Your task to perform on an android device: Open calendar and show me the first week of next month Image 0: 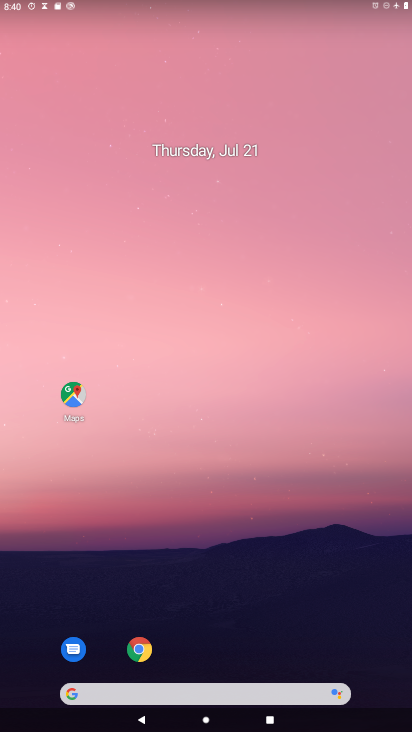
Step 0: drag from (364, 614) to (211, 60)
Your task to perform on an android device: Open calendar and show me the first week of next month Image 1: 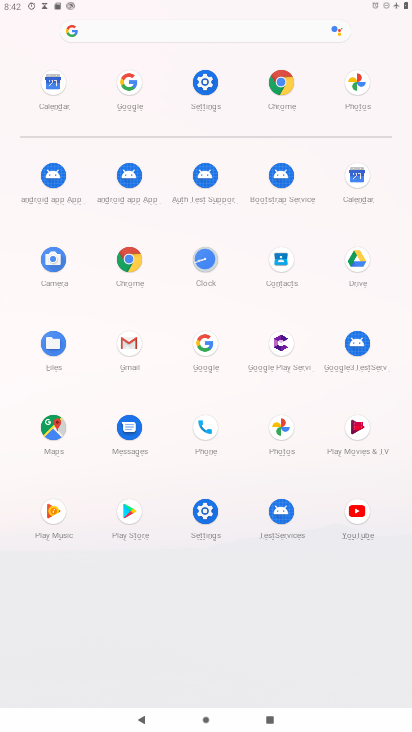
Step 1: click (360, 173)
Your task to perform on an android device: Open calendar and show me the first week of next month Image 2: 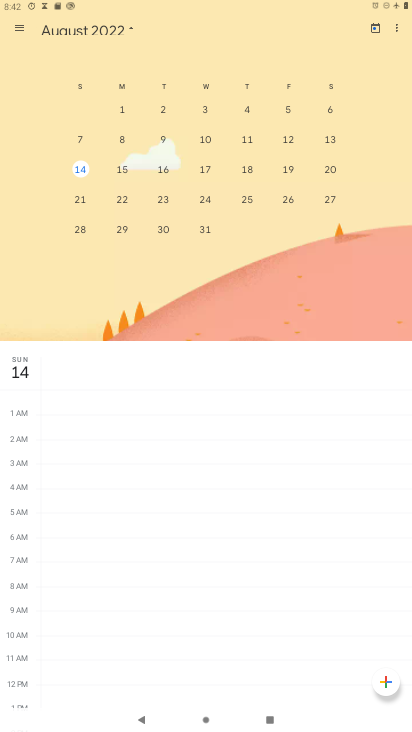
Step 2: drag from (344, 163) to (12, 154)
Your task to perform on an android device: Open calendar and show me the first week of next month Image 3: 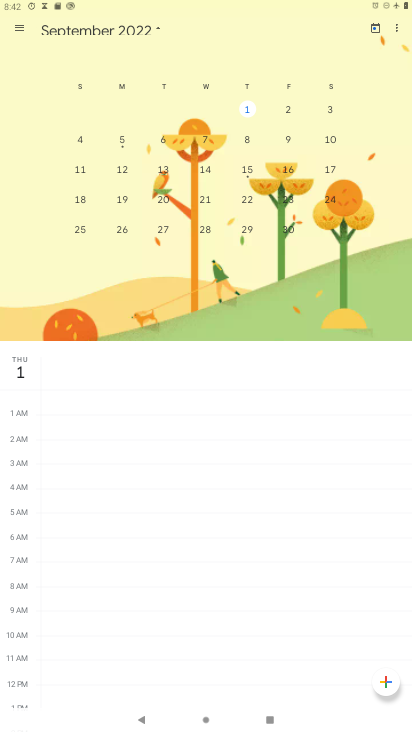
Step 3: click (77, 136)
Your task to perform on an android device: Open calendar and show me the first week of next month Image 4: 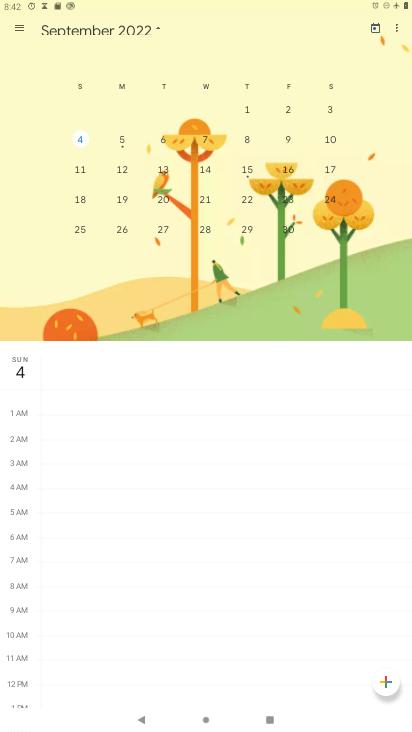
Step 4: task complete